Your task to perform on an android device: Set the phone to "Do not disturb". Image 0: 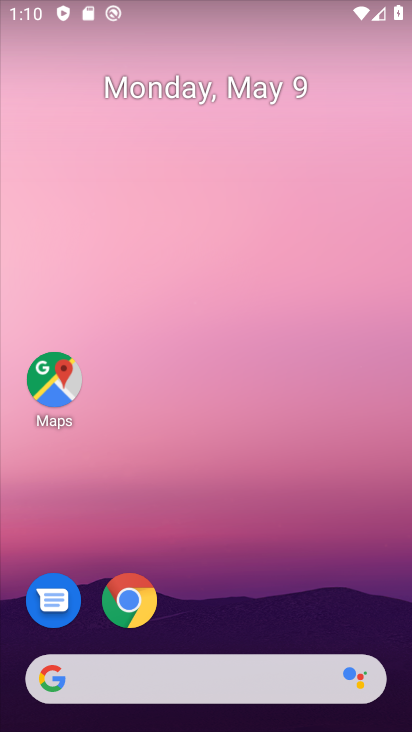
Step 0: drag from (136, 668) to (276, 255)
Your task to perform on an android device: Set the phone to "Do not disturb". Image 1: 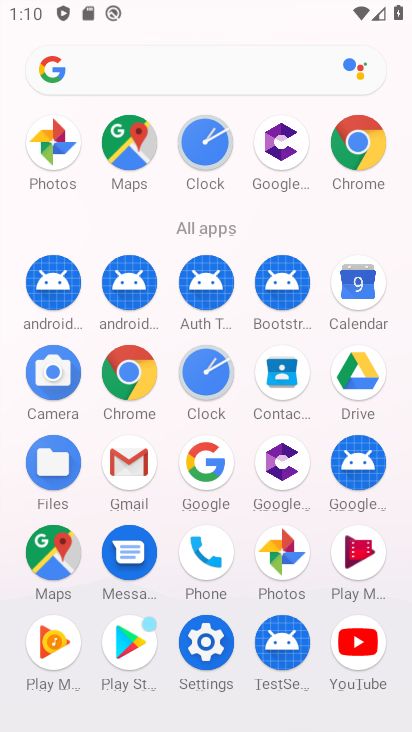
Step 1: click (213, 628)
Your task to perform on an android device: Set the phone to "Do not disturb". Image 2: 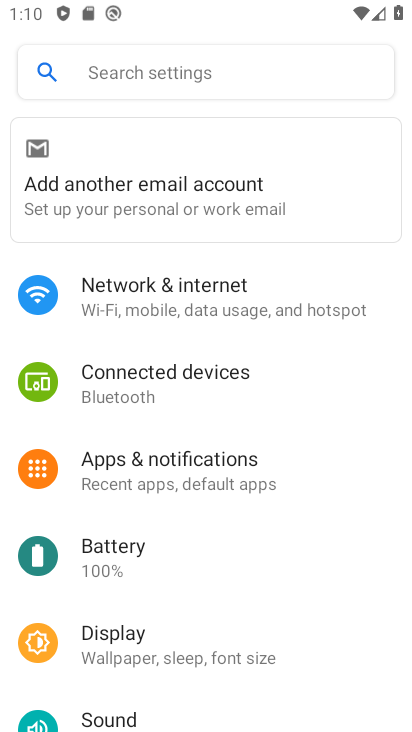
Step 2: drag from (167, 621) to (293, 295)
Your task to perform on an android device: Set the phone to "Do not disturb". Image 3: 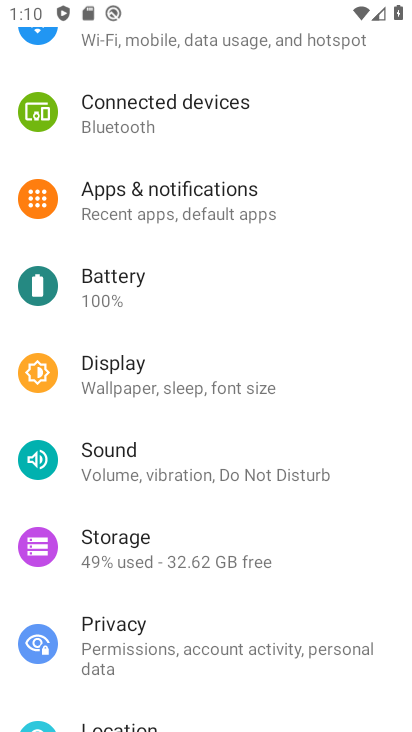
Step 3: click (191, 470)
Your task to perform on an android device: Set the phone to "Do not disturb". Image 4: 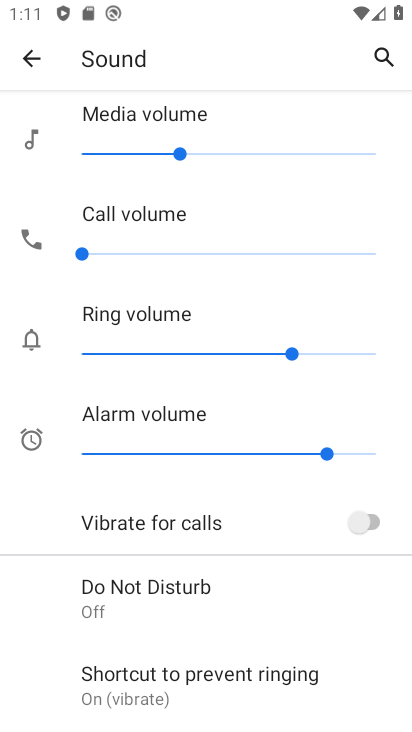
Step 4: click (158, 592)
Your task to perform on an android device: Set the phone to "Do not disturb". Image 5: 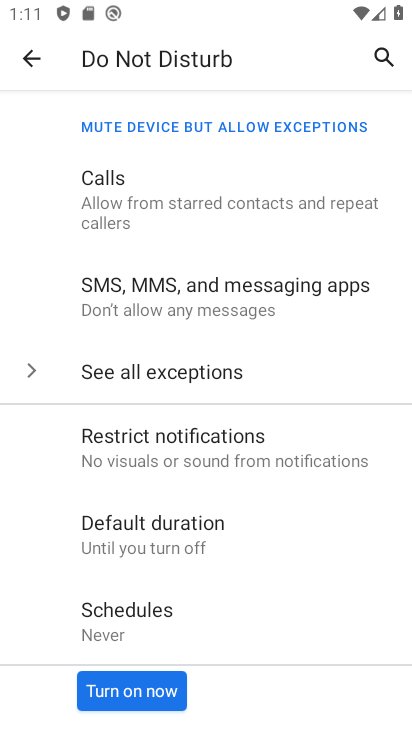
Step 5: click (124, 683)
Your task to perform on an android device: Set the phone to "Do not disturb". Image 6: 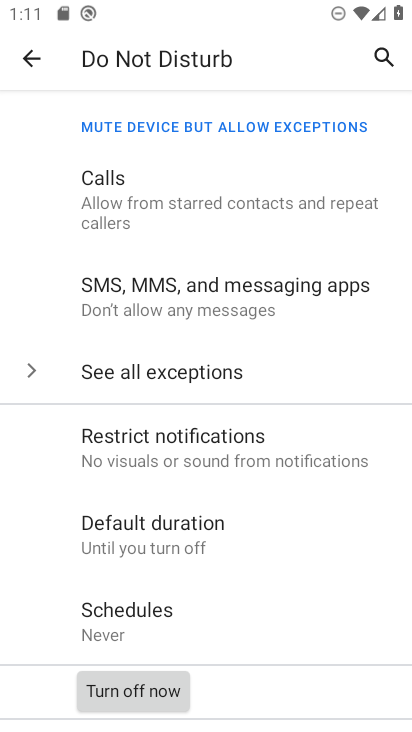
Step 6: task complete